Your task to perform on an android device: check the backup settings in the google photos Image 0: 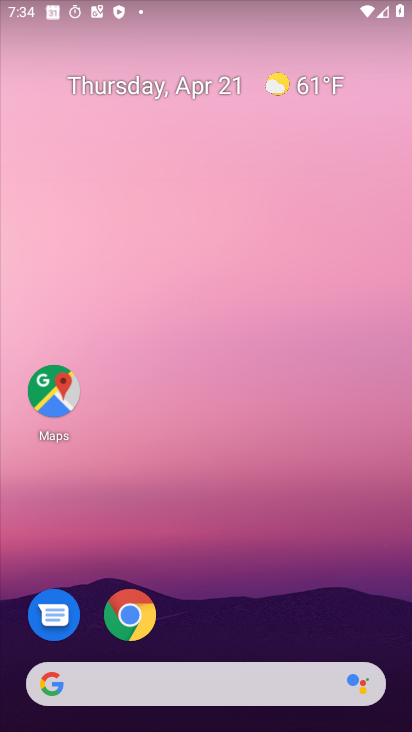
Step 0: drag from (223, 625) to (340, 90)
Your task to perform on an android device: check the backup settings in the google photos Image 1: 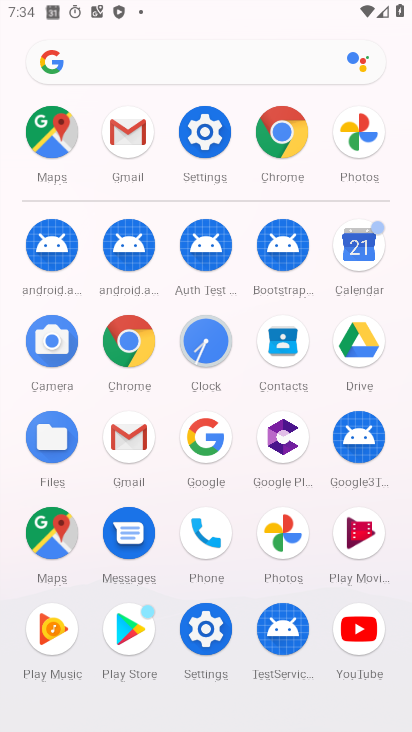
Step 1: click (291, 535)
Your task to perform on an android device: check the backup settings in the google photos Image 2: 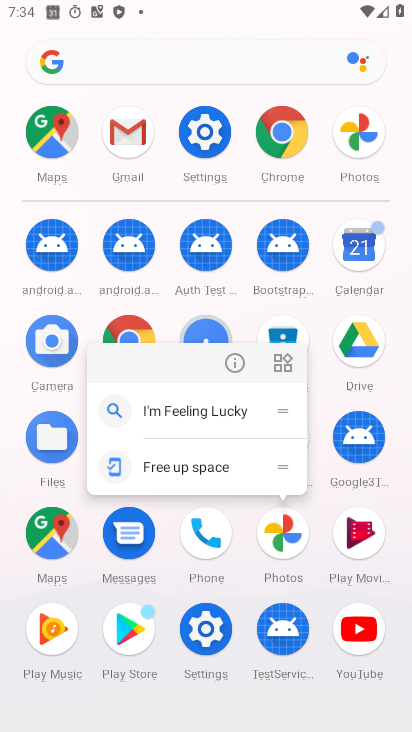
Step 2: click (231, 354)
Your task to perform on an android device: check the backup settings in the google photos Image 3: 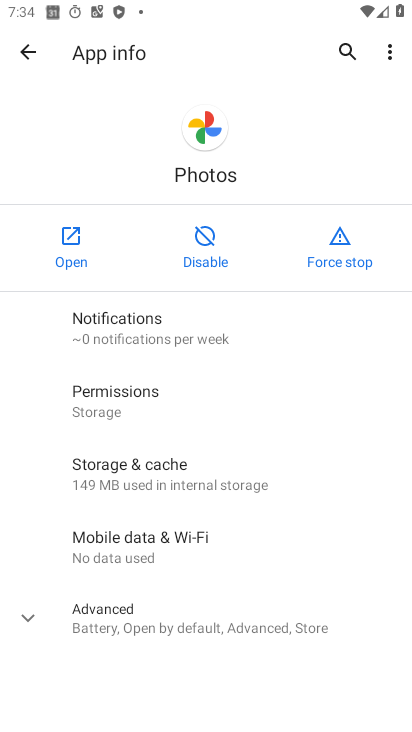
Step 3: click (75, 223)
Your task to perform on an android device: check the backup settings in the google photos Image 4: 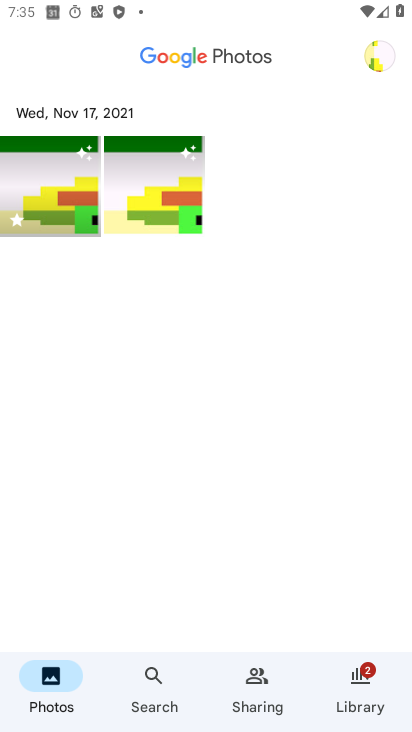
Step 4: drag from (384, 54) to (292, 605)
Your task to perform on an android device: check the backup settings in the google photos Image 5: 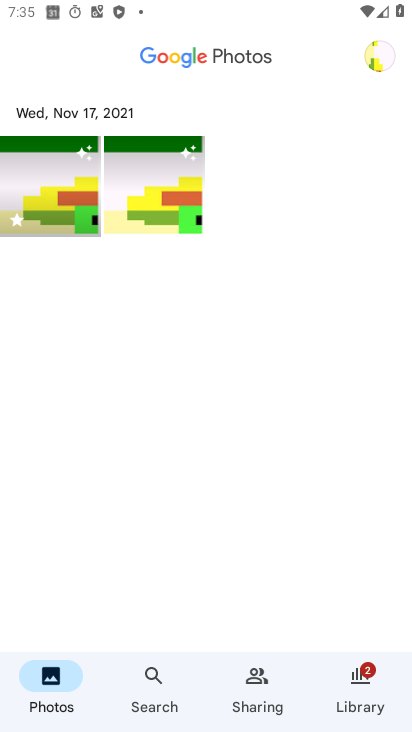
Step 5: drag from (384, 52) to (340, 592)
Your task to perform on an android device: check the backup settings in the google photos Image 6: 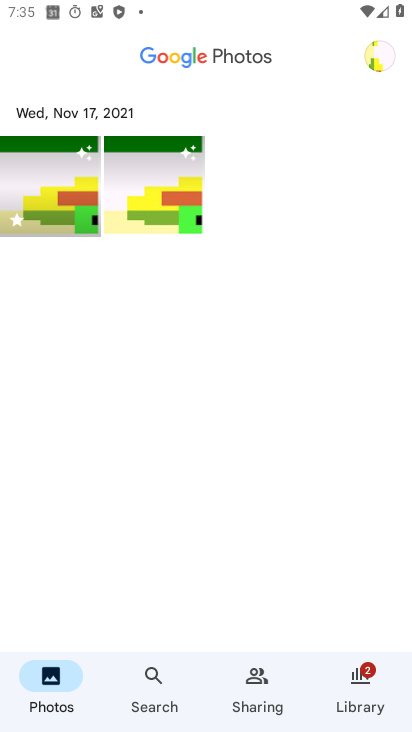
Step 6: click (378, 49)
Your task to perform on an android device: check the backup settings in the google photos Image 7: 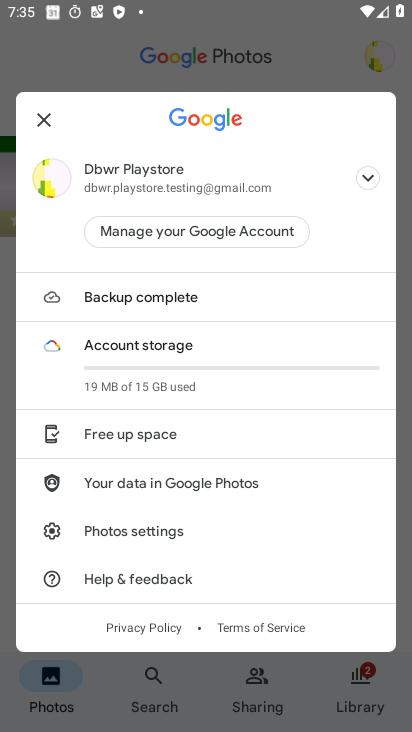
Step 7: drag from (185, 563) to (225, 223)
Your task to perform on an android device: check the backup settings in the google photos Image 8: 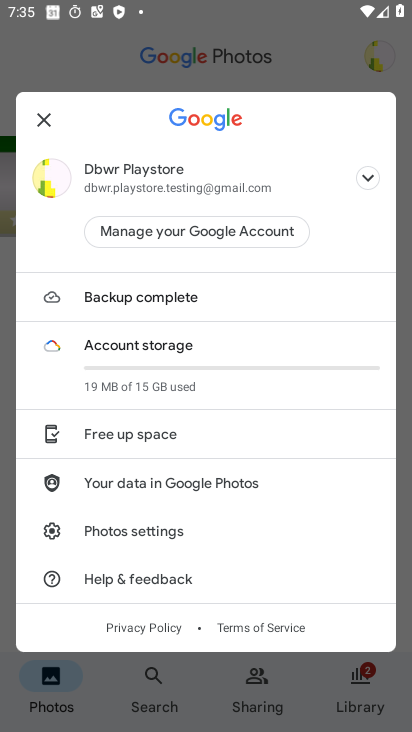
Step 8: click (133, 540)
Your task to perform on an android device: check the backup settings in the google photos Image 9: 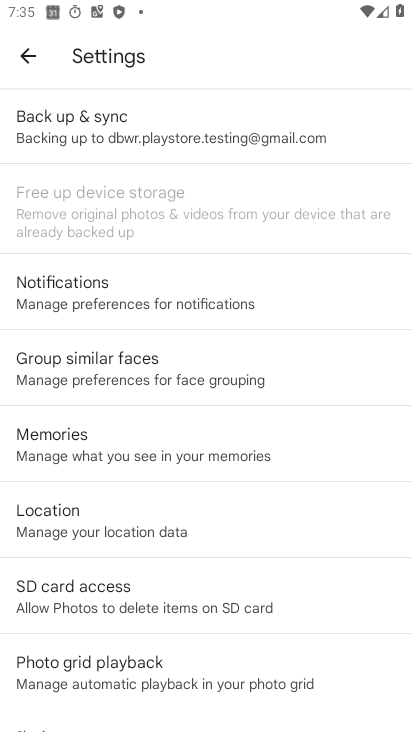
Step 9: click (152, 133)
Your task to perform on an android device: check the backup settings in the google photos Image 10: 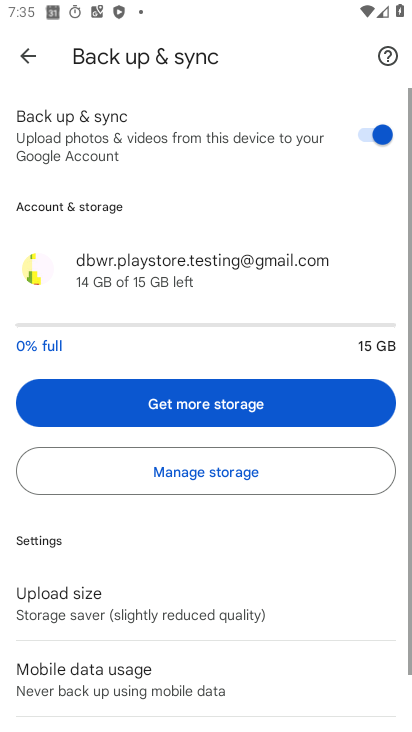
Step 10: task complete